Your task to perform on an android device: check android version Image 0: 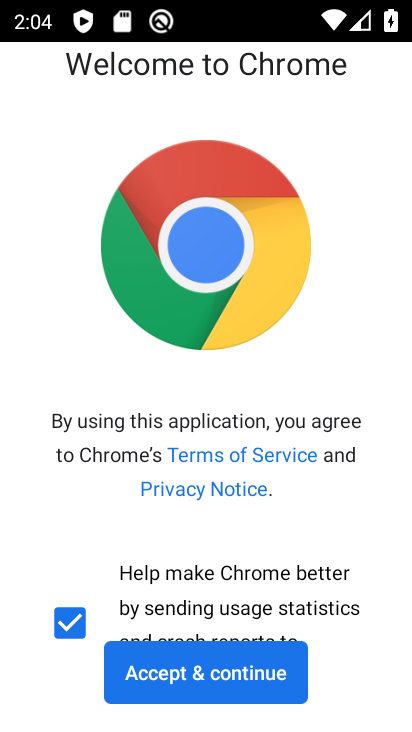
Step 0: press home button
Your task to perform on an android device: check android version Image 1: 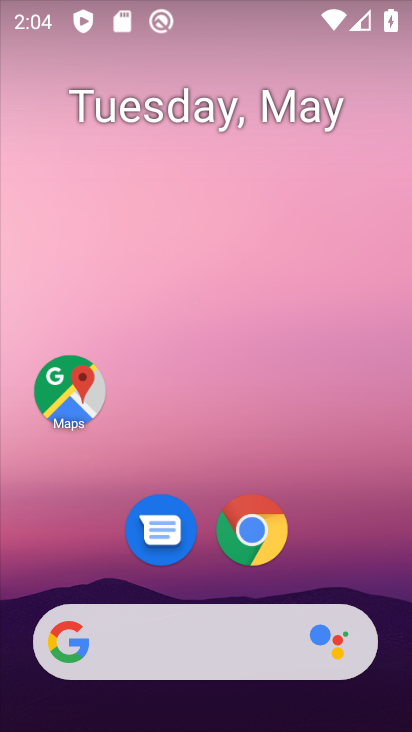
Step 1: drag from (46, 489) to (179, 160)
Your task to perform on an android device: check android version Image 2: 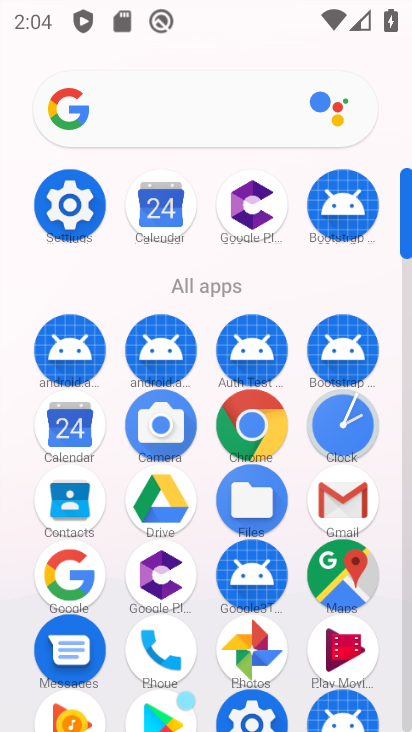
Step 2: click (60, 208)
Your task to perform on an android device: check android version Image 3: 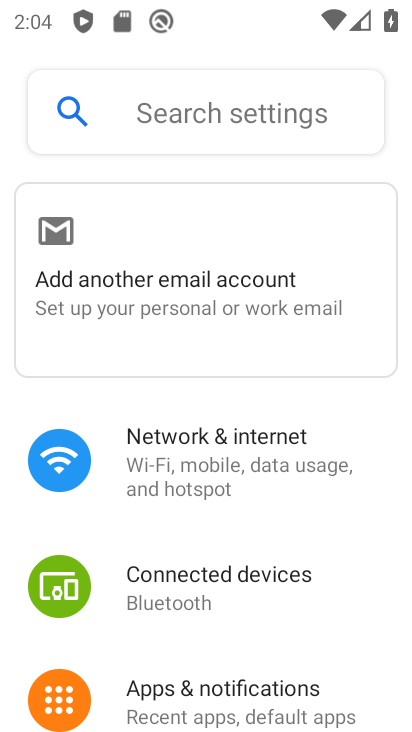
Step 3: drag from (11, 628) to (202, 88)
Your task to perform on an android device: check android version Image 4: 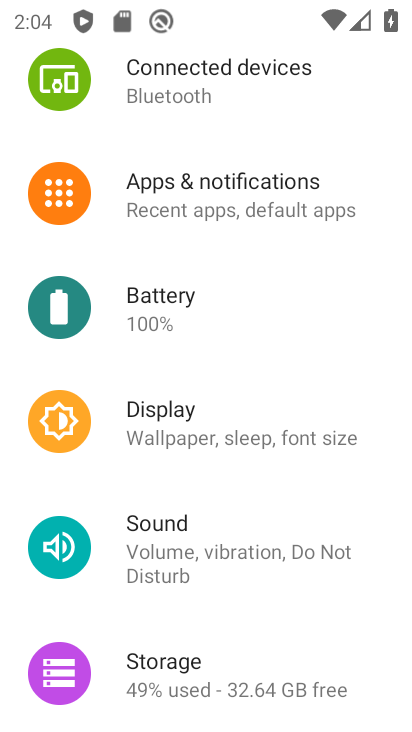
Step 4: drag from (1, 692) to (272, 174)
Your task to perform on an android device: check android version Image 5: 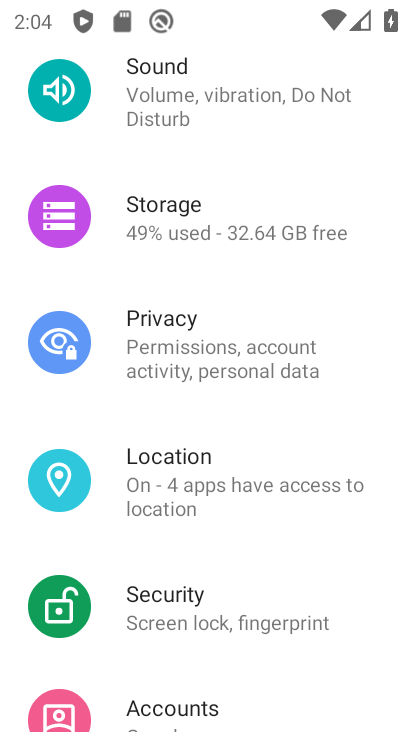
Step 5: drag from (32, 587) to (328, 57)
Your task to perform on an android device: check android version Image 6: 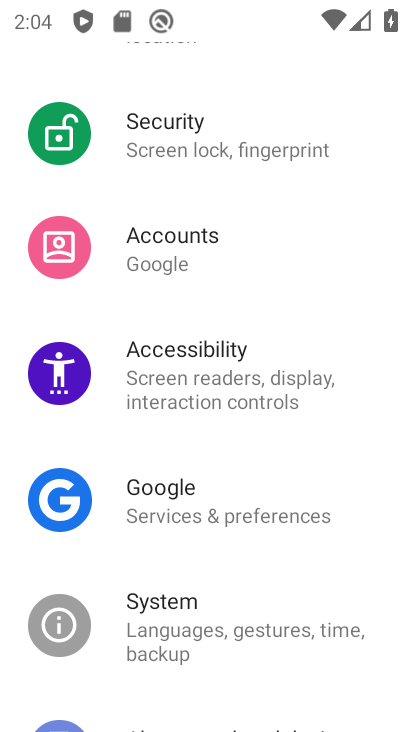
Step 6: drag from (29, 614) to (305, 127)
Your task to perform on an android device: check android version Image 7: 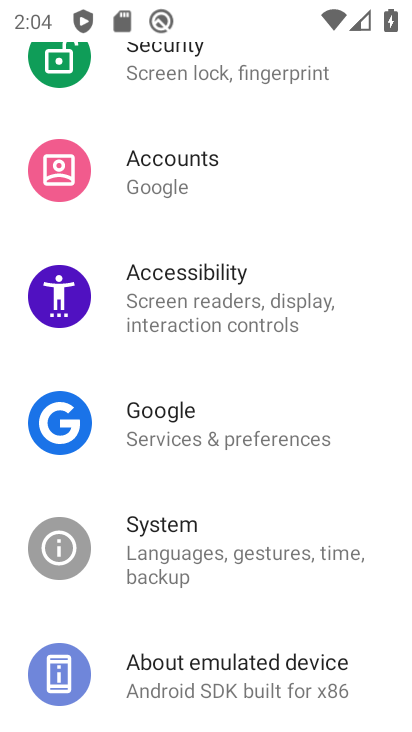
Step 7: click (160, 683)
Your task to perform on an android device: check android version Image 8: 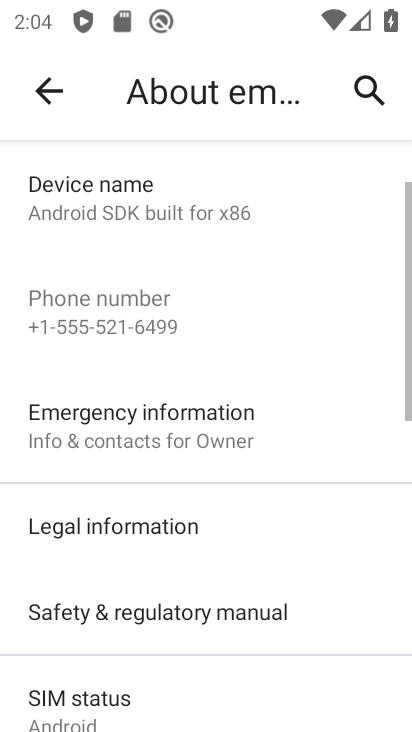
Step 8: drag from (22, 480) to (215, 158)
Your task to perform on an android device: check android version Image 9: 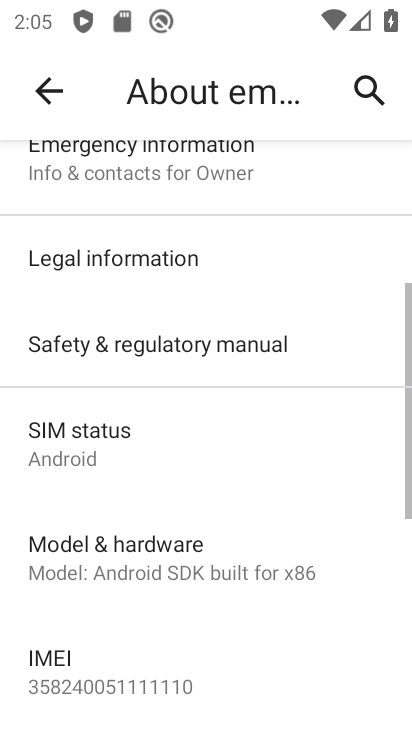
Step 9: drag from (86, 717) to (249, 225)
Your task to perform on an android device: check android version Image 10: 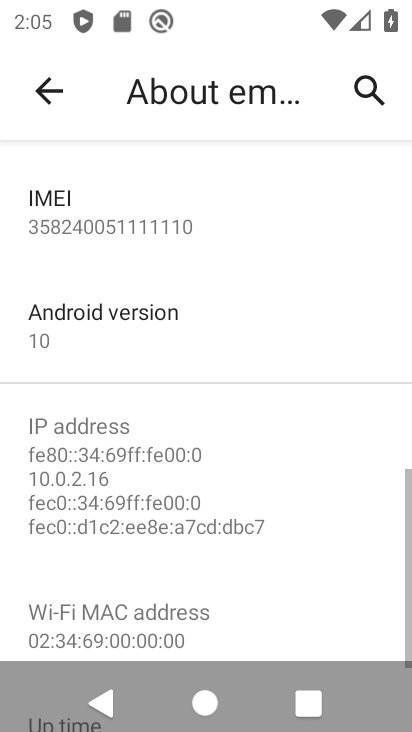
Step 10: drag from (28, 539) to (172, 219)
Your task to perform on an android device: check android version Image 11: 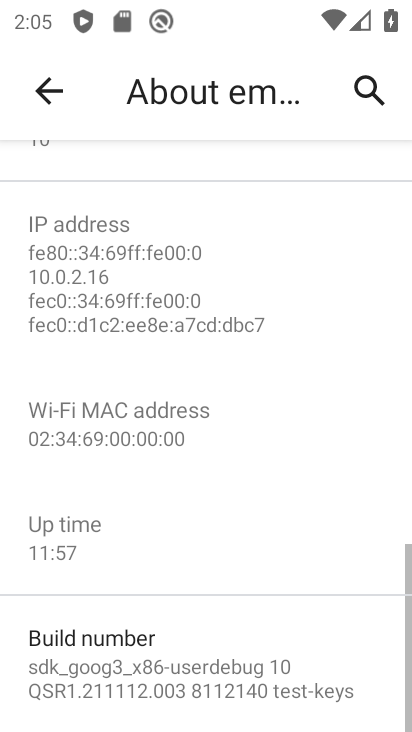
Step 11: drag from (11, 659) to (250, 158)
Your task to perform on an android device: check android version Image 12: 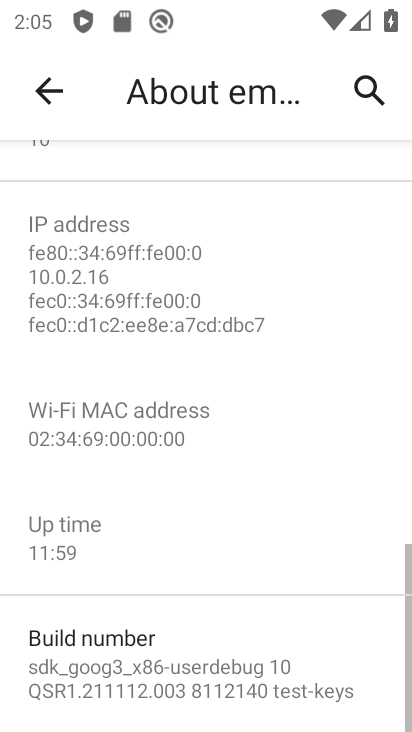
Step 12: drag from (271, 146) to (214, 513)
Your task to perform on an android device: check android version Image 13: 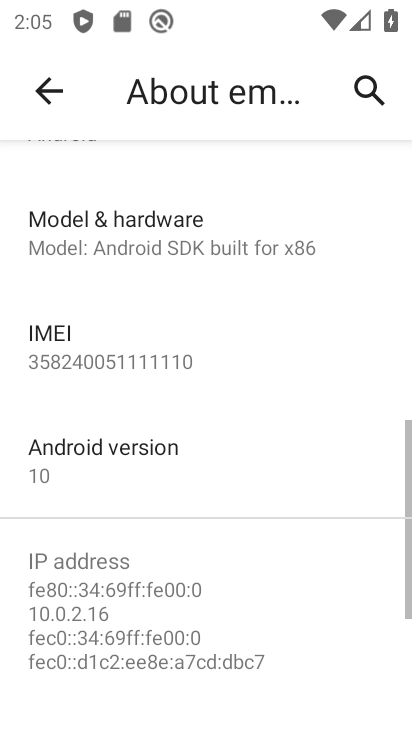
Step 13: click (71, 446)
Your task to perform on an android device: check android version Image 14: 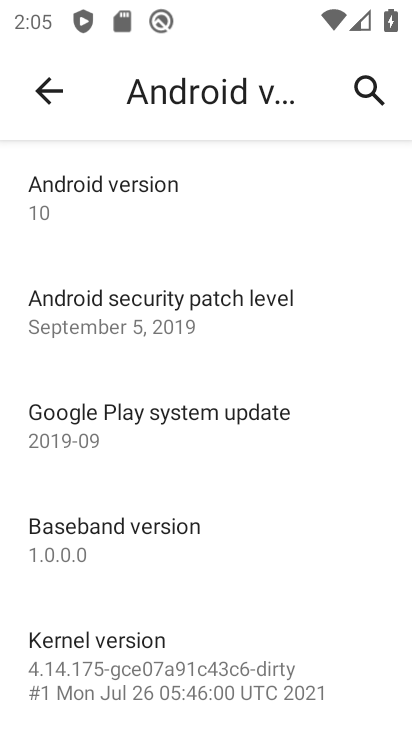
Step 14: task complete